Your task to perform on an android device: Go to Wikipedia Image 0: 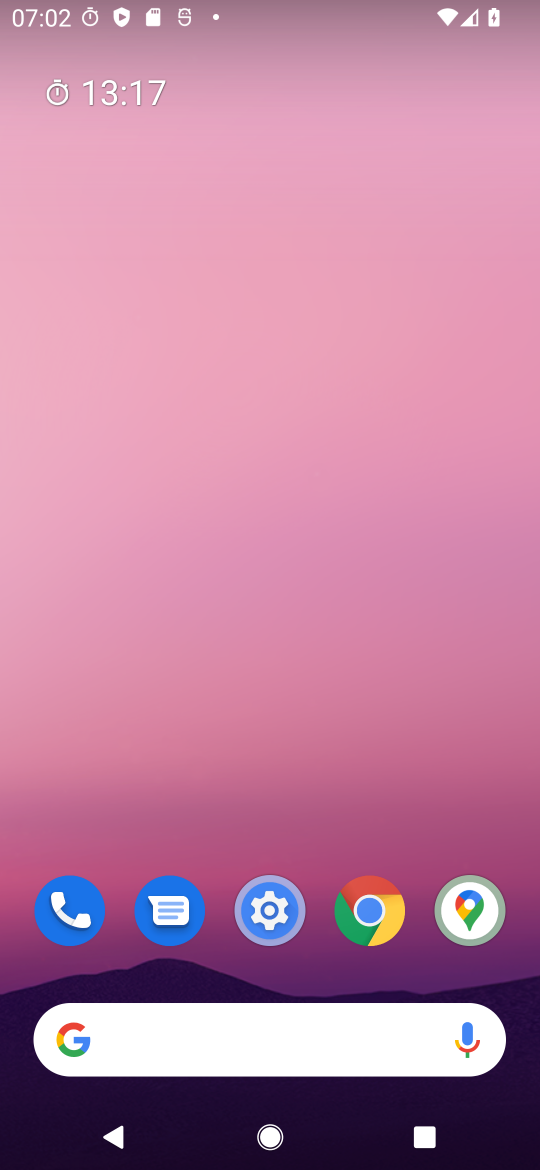
Step 0: drag from (192, 1023) to (229, 74)
Your task to perform on an android device: Go to Wikipedia Image 1: 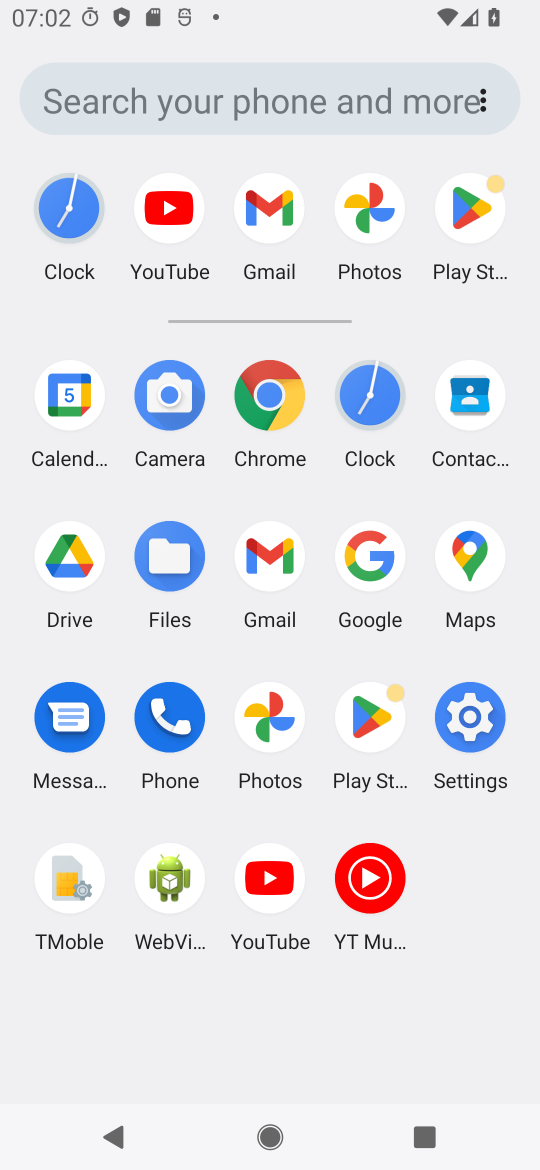
Step 1: click (279, 394)
Your task to perform on an android device: Go to Wikipedia Image 2: 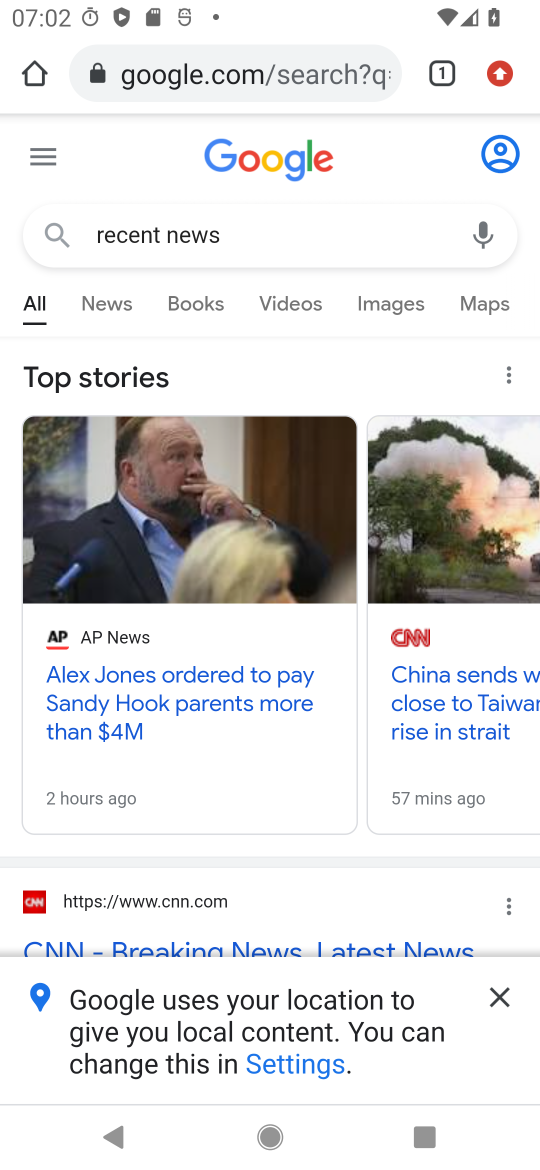
Step 2: click (500, 68)
Your task to perform on an android device: Go to Wikipedia Image 3: 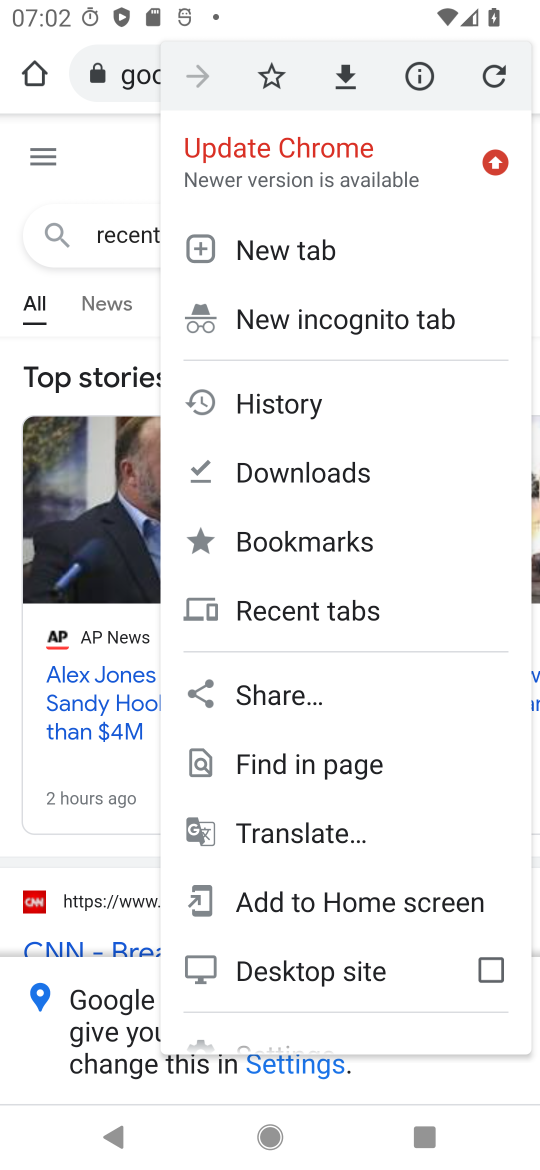
Step 3: click (299, 271)
Your task to perform on an android device: Go to Wikipedia Image 4: 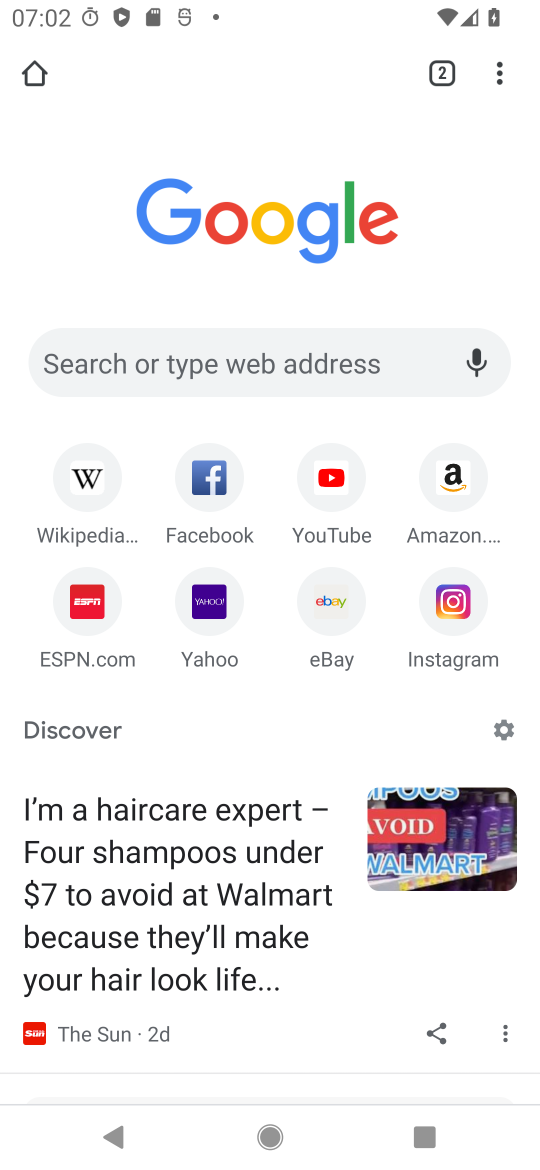
Step 4: click (98, 466)
Your task to perform on an android device: Go to Wikipedia Image 5: 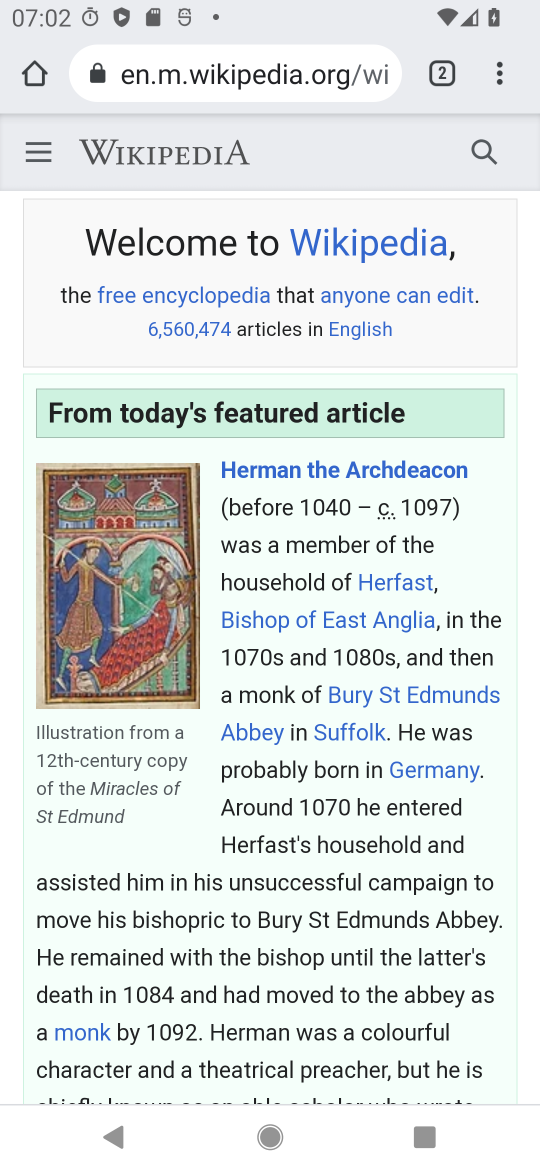
Step 5: task complete